Your task to perform on an android device: Open calendar and show me the third week of next month Image 0: 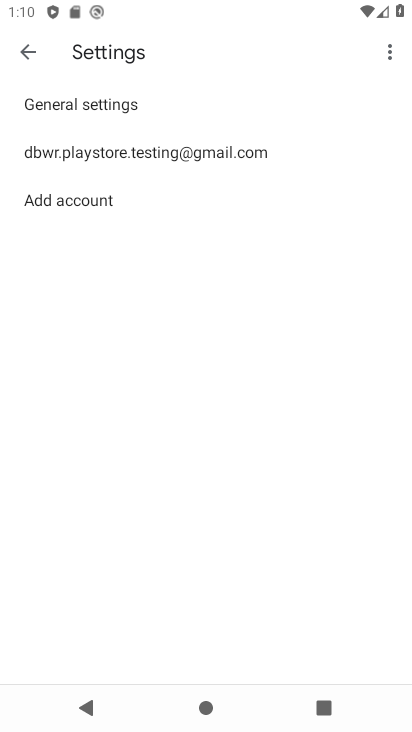
Step 0: press home button
Your task to perform on an android device: Open calendar and show me the third week of next month Image 1: 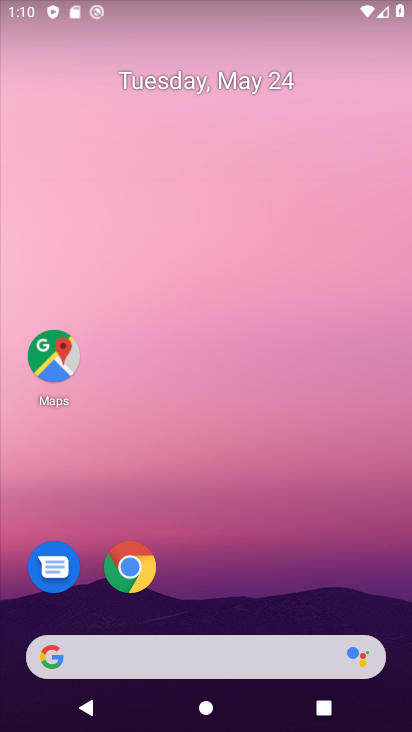
Step 1: drag from (219, 604) to (268, 24)
Your task to perform on an android device: Open calendar and show me the third week of next month Image 2: 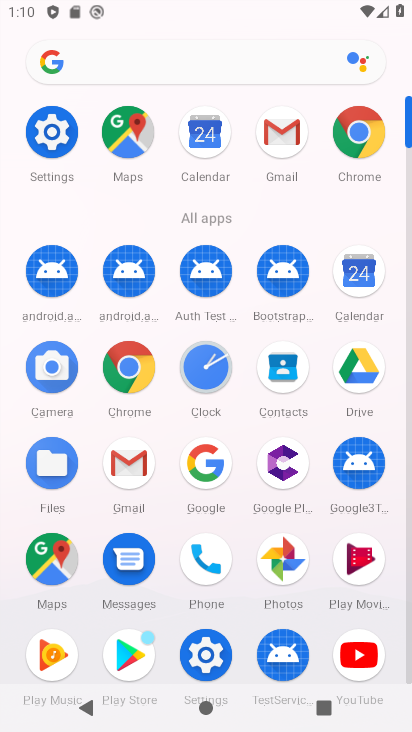
Step 2: click (363, 293)
Your task to perform on an android device: Open calendar and show me the third week of next month Image 3: 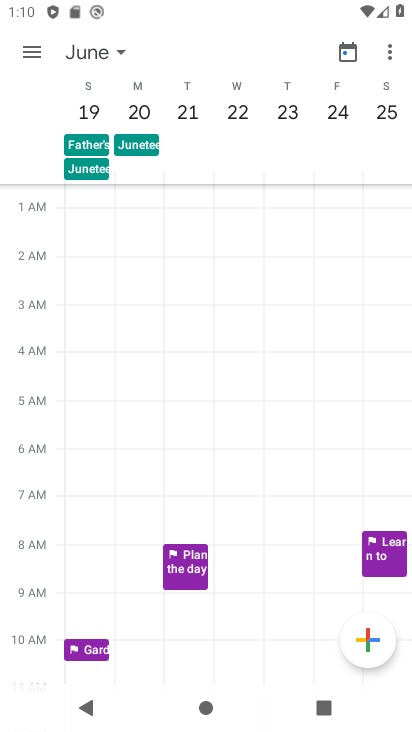
Step 3: task complete